Your task to perform on an android device: Open calendar and show me the first week of next month Image 0: 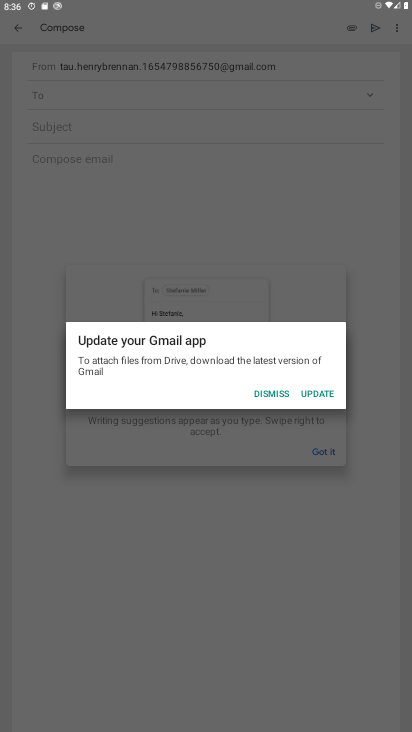
Step 0: press home button
Your task to perform on an android device: Open calendar and show me the first week of next month Image 1: 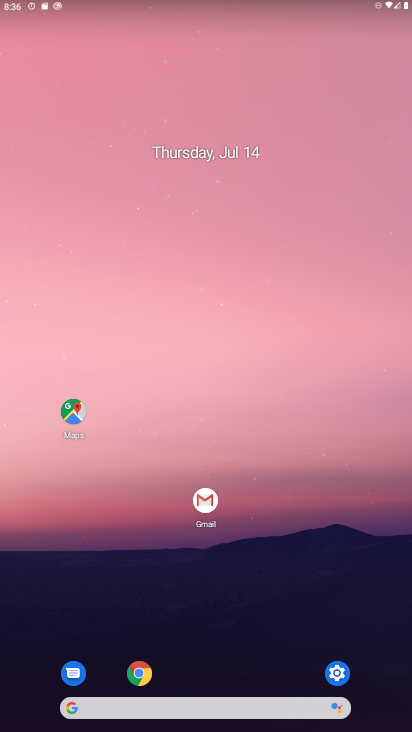
Step 1: drag from (260, 719) to (298, 176)
Your task to perform on an android device: Open calendar and show me the first week of next month Image 2: 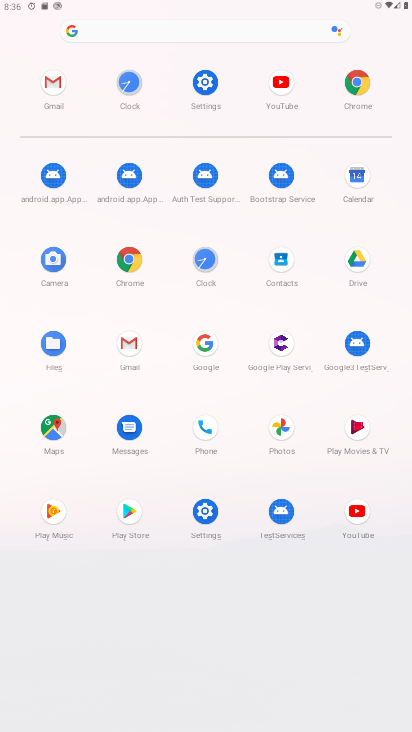
Step 2: click (365, 176)
Your task to perform on an android device: Open calendar and show me the first week of next month Image 3: 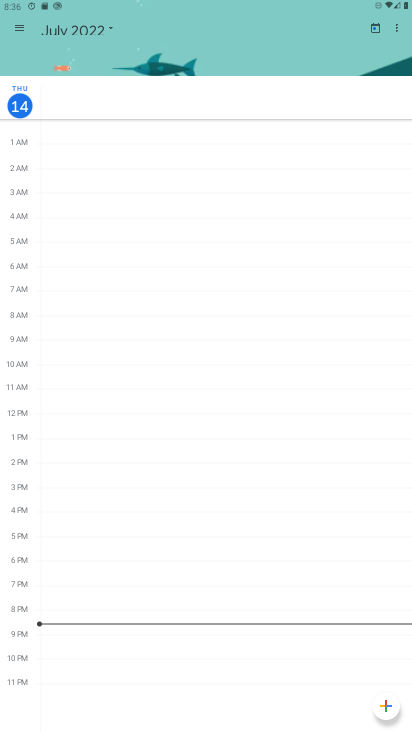
Step 3: click (26, 30)
Your task to perform on an android device: Open calendar and show me the first week of next month Image 4: 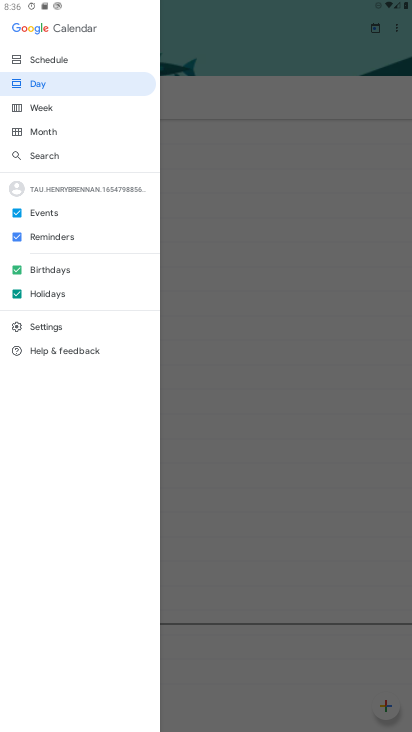
Step 4: click (63, 129)
Your task to perform on an android device: Open calendar and show me the first week of next month Image 5: 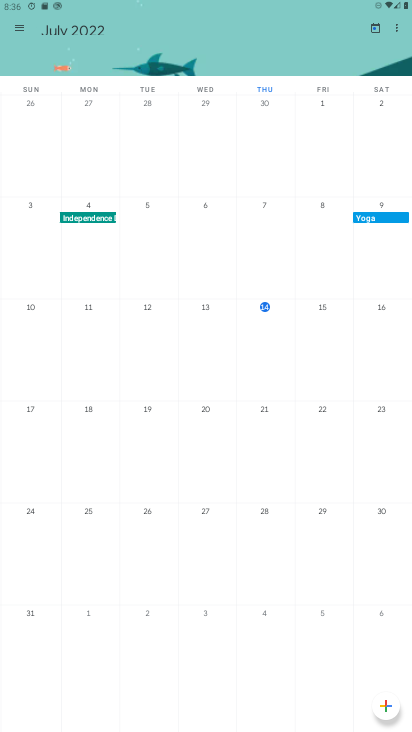
Step 5: drag from (337, 349) to (0, 331)
Your task to perform on an android device: Open calendar and show me the first week of next month Image 6: 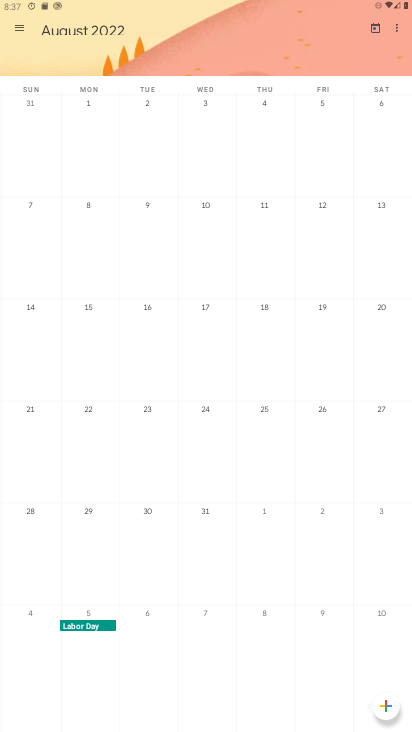
Step 6: click (99, 124)
Your task to perform on an android device: Open calendar and show me the first week of next month Image 7: 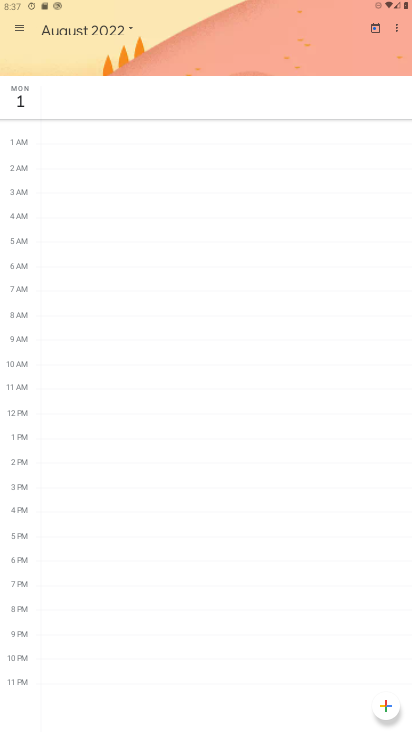
Step 7: task complete